Your task to perform on an android device: open app "Microsoft Outlook" (install if not already installed) Image 0: 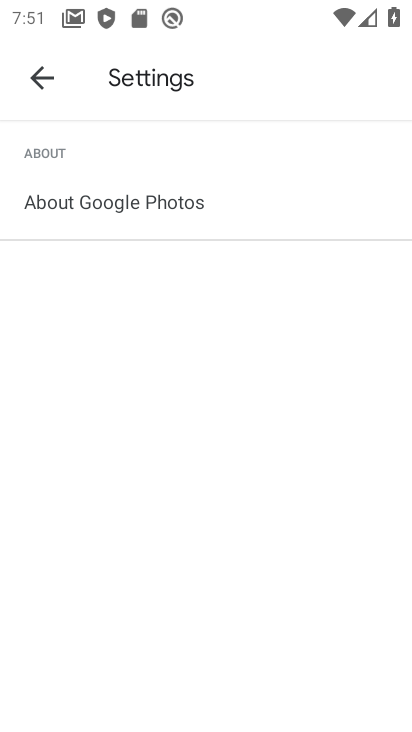
Step 0: press home button
Your task to perform on an android device: open app "Microsoft Outlook" (install if not already installed) Image 1: 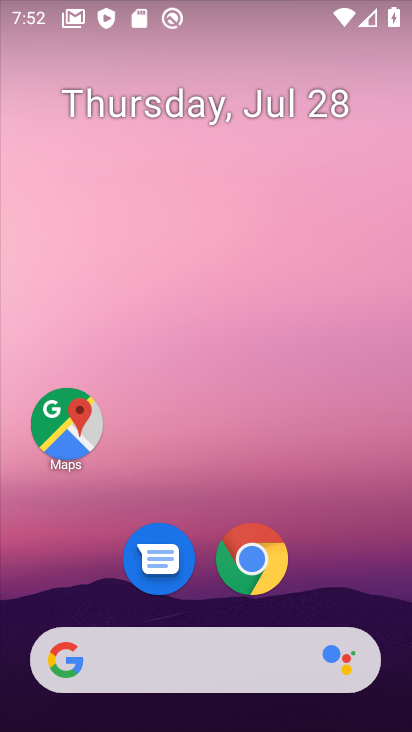
Step 1: drag from (200, 520) to (194, 182)
Your task to perform on an android device: open app "Microsoft Outlook" (install if not already installed) Image 2: 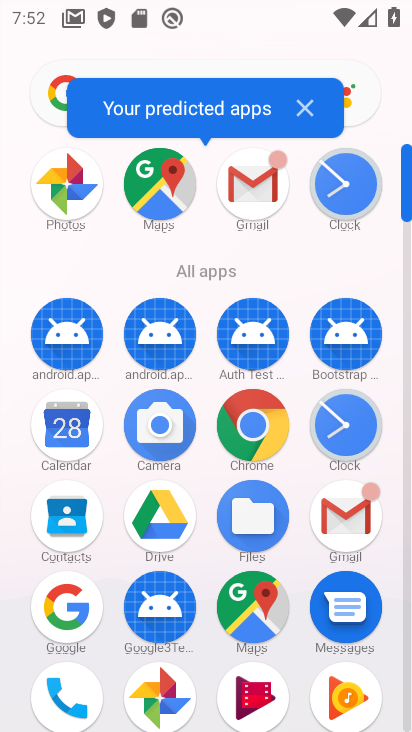
Step 2: drag from (192, 648) to (222, 349)
Your task to perform on an android device: open app "Microsoft Outlook" (install if not already installed) Image 3: 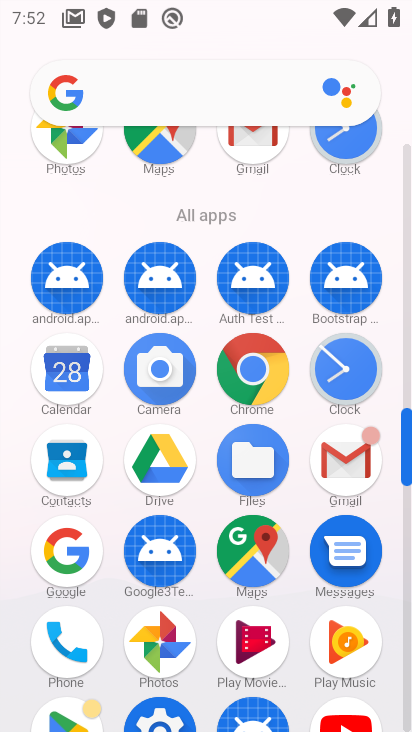
Step 3: drag from (207, 662) to (217, 243)
Your task to perform on an android device: open app "Microsoft Outlook" (install if not already installed) Image 4: 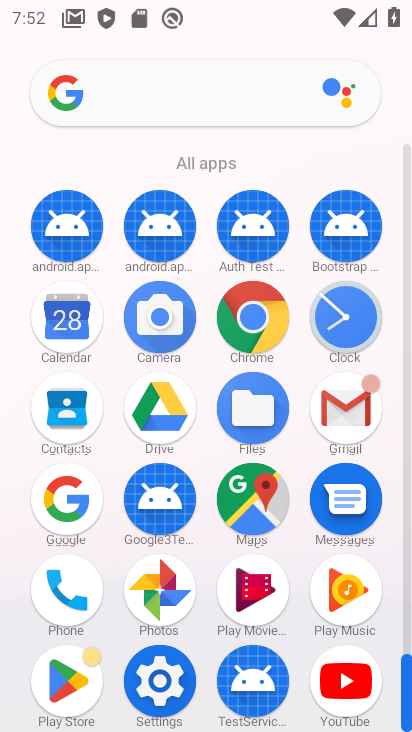
Step 4: click (72, 672)
Your task to perform on an android device: open app "Microsoft Outlook" (install if not already installed) Image 5: 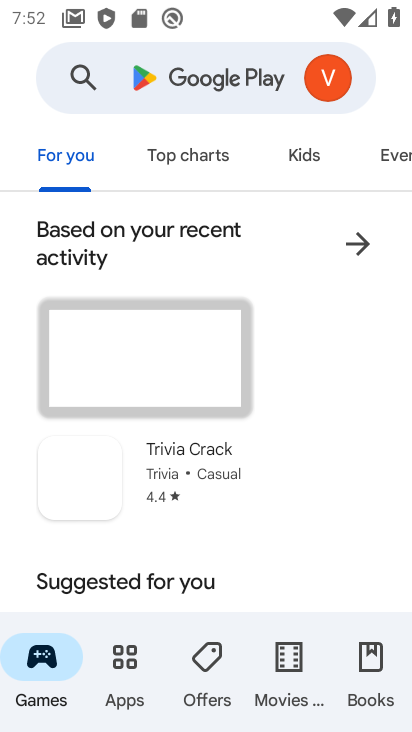
Step 5: click (232, 86)
Your task to perform on an android device: open app "Microsoft Outlook" (install if not already installed) Image 6: 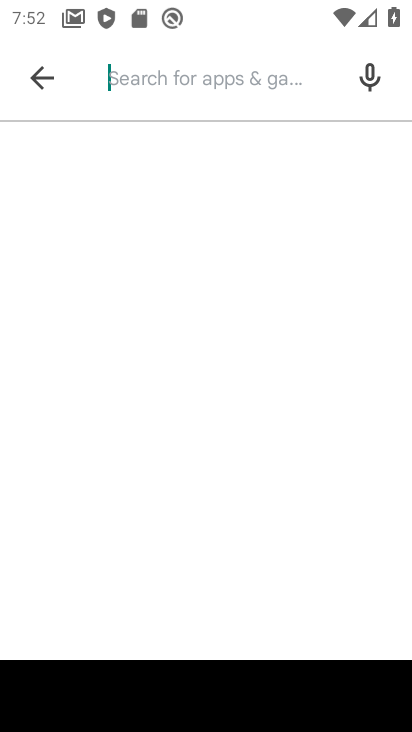
Step 6: type "microsoft Outlook"
Your task to perform on an android device: open app "Microsoft Outlook" (install if not already installed) Image 7: 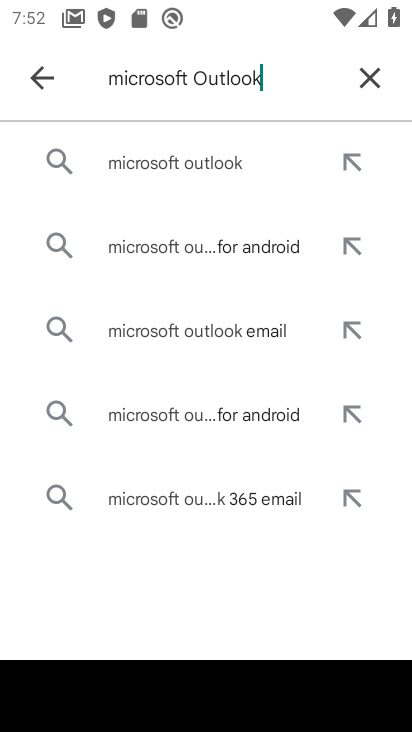
Step 7: click (148, 162)
Your task to perform on an android device: open app "Microsoft Outlook" (install if not already installed) Image 8: 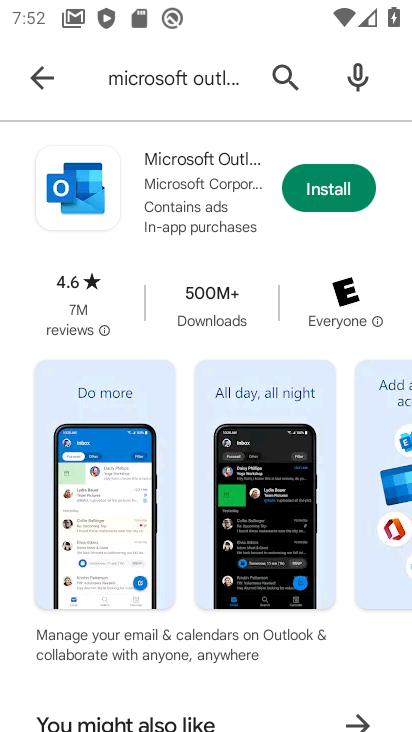
Step 8: click (311, 196)
Your task to perform on an android device: open app "Microsoft Outlook" (install if not already installed) Image 9: 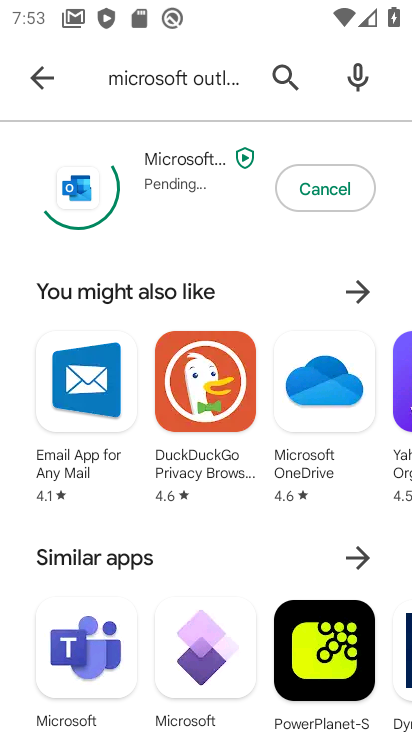
Step 9: click (48, 71)
Your task to perform on an android device: open app "Microsoft Outlook" (install if not already installed) Image 10: 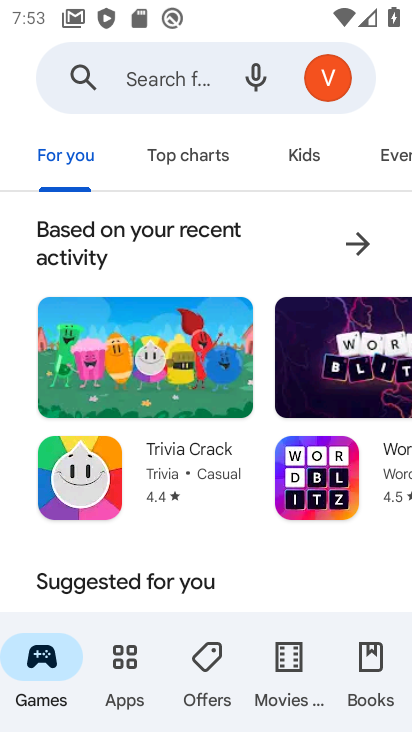
Step 10: click (337, 81)
Your task to perform on an android device: open app "Microsoft Outlook" (install if not already installed) Image 11: 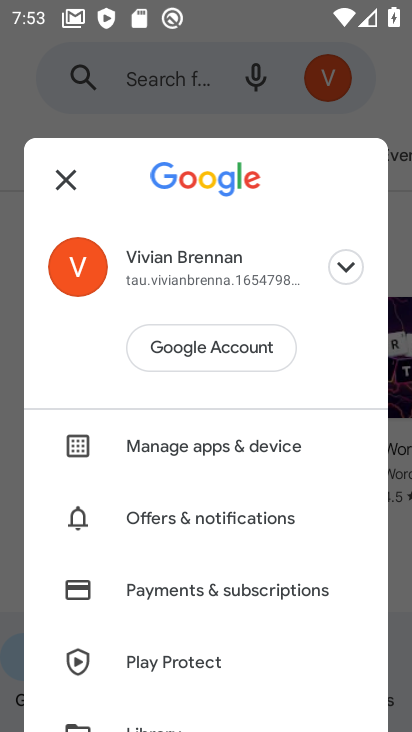
Step 11: click (227, 446)
Your task to perform on an android device: open app "Microsoft Outlook" (install if not already installed) Image 12: 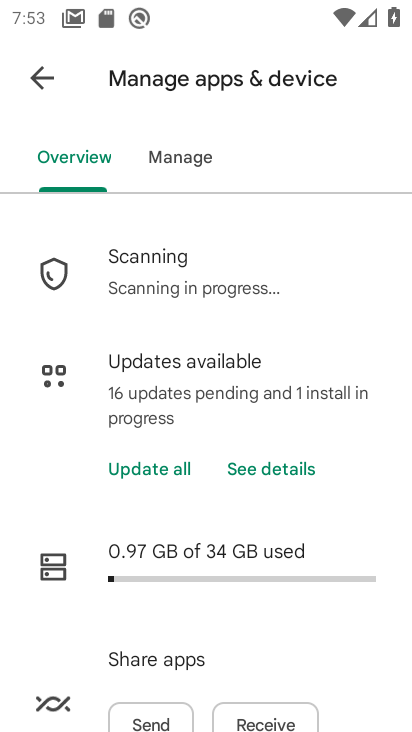
Step 12: click (186, 399)
Your task to perform on an android device: open app "Microsoft Outlook" (install if not already installed) Image 13: 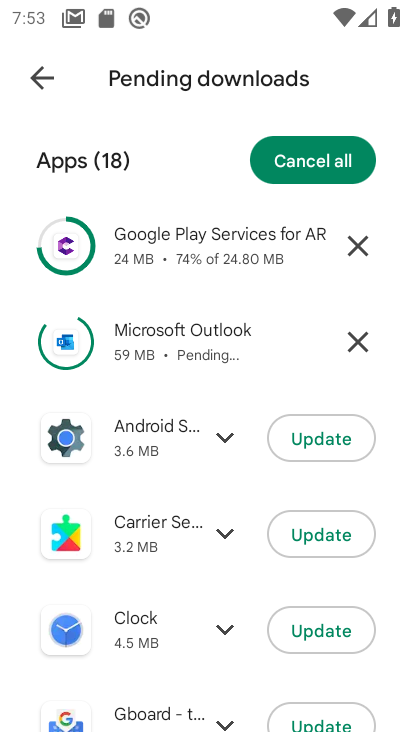
Step 13: click (357, 240)
Your task to perform on an android device: open app "Microsoft Outlook" (install if not already installed) Image 14: 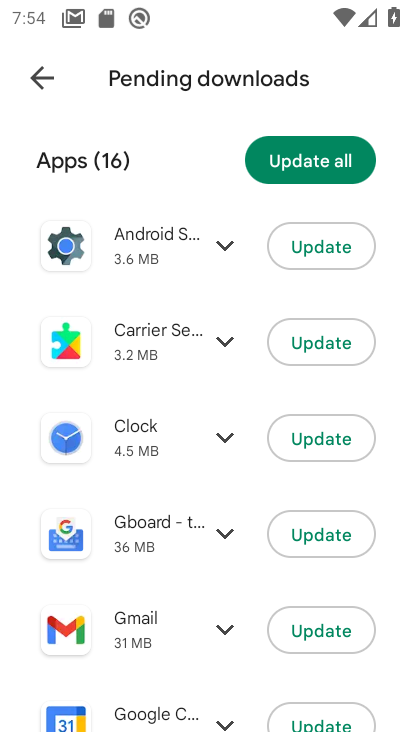
Step 14: click (35, 76)
Your task to perform on an android device: open app "Microsoft Outlook" (install if not already installed) Image 15: 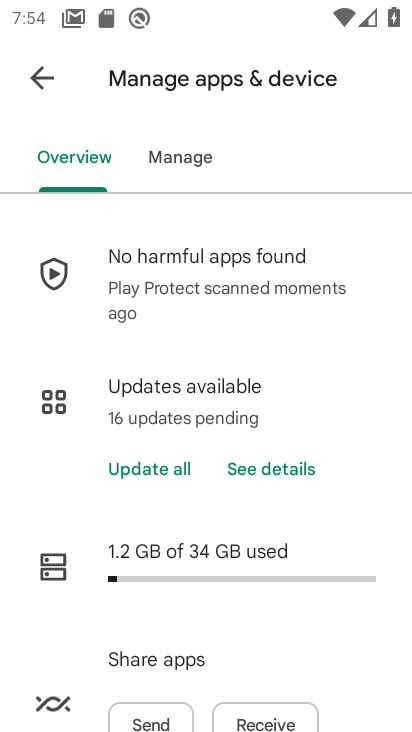
Step 15: click (41, 71)
Your task to perform on an android device: open app "Microsoft Outlook" (install if not already installed) Image 16: 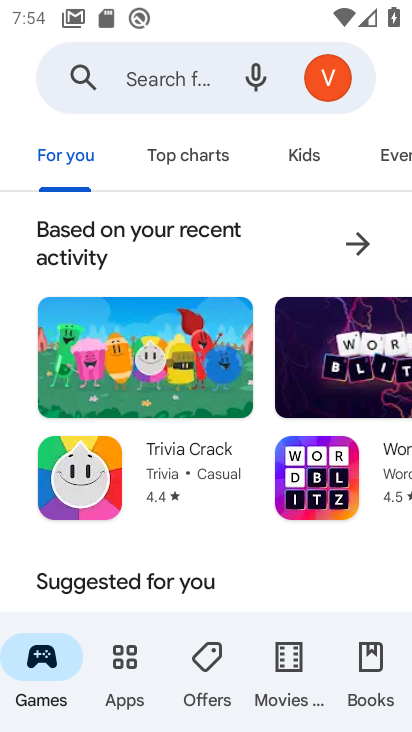
Step 16: click (174, 93)
Your task to perform on an android device: open app "Microsoft Outlook" (install if not already installed) Image 17: 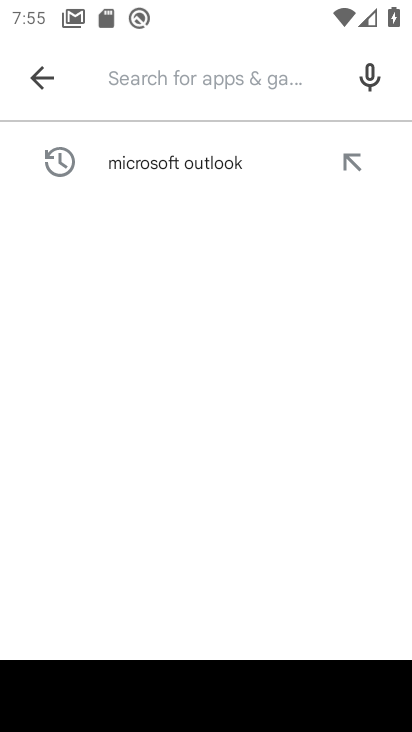
Step 17: click (200, 157)
Your task to perform on an android device: open app "Microsoft Outlook" (install if not already installed) Image 18: 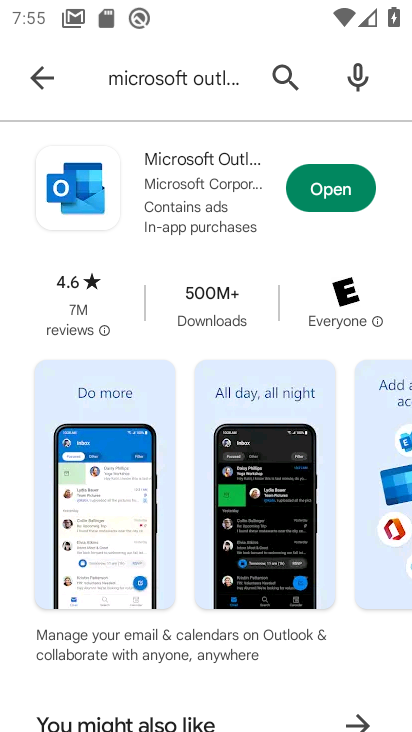
Step 18: click (331, 181)
Your task to perform on an android device: open app "Microsoft Outlook" (install if not already installed) Image 19: 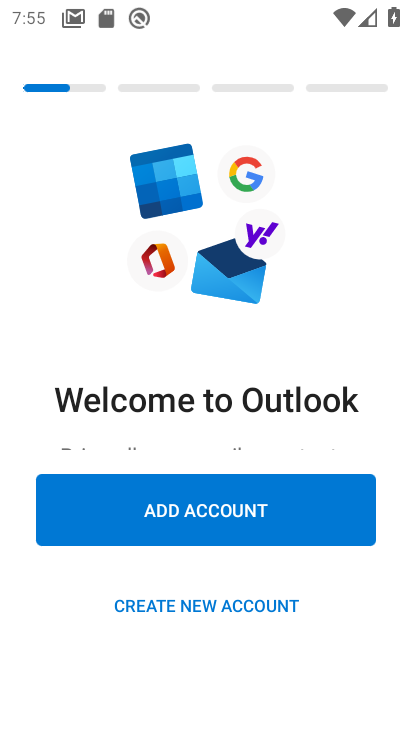
Step 19: task complete